Your task to perform on an android device: show emergency info Image 0: 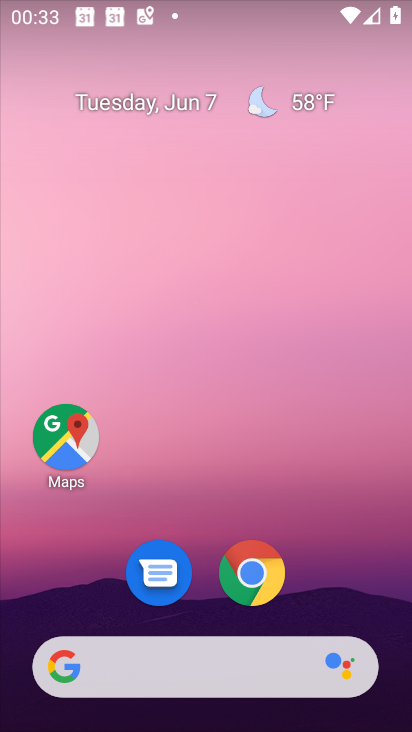
Step 0: press home button
Your task to perform on an android device: show emergency info Image 1: 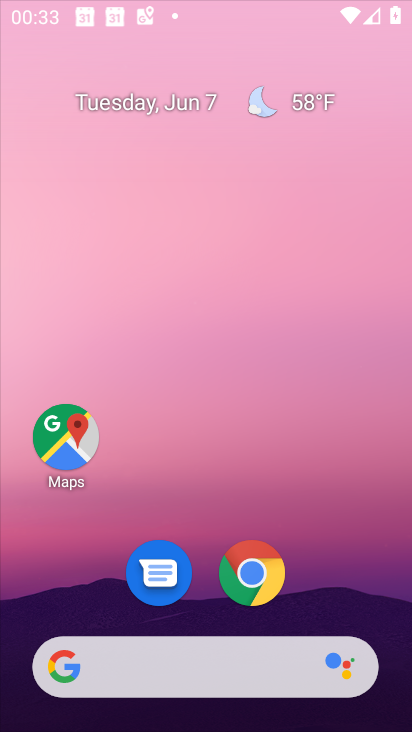
Step 1: drag from (337, 593) to (298, 5)
Your task to perform on an android device: show emergency info Image 2: 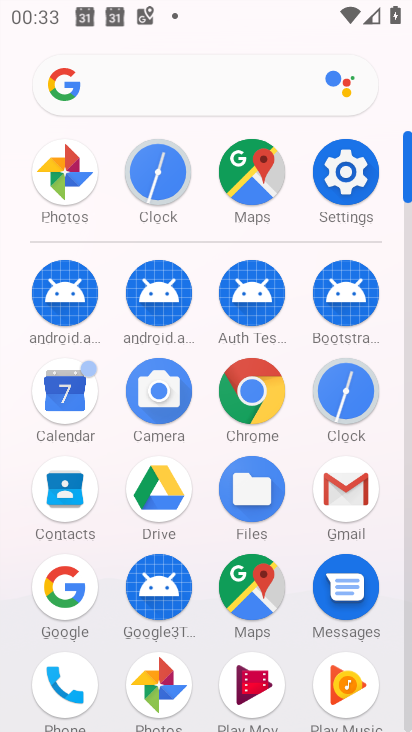
Step 2: click (352, 185)
Your task to perform on an android device: show emergency info Image 3: 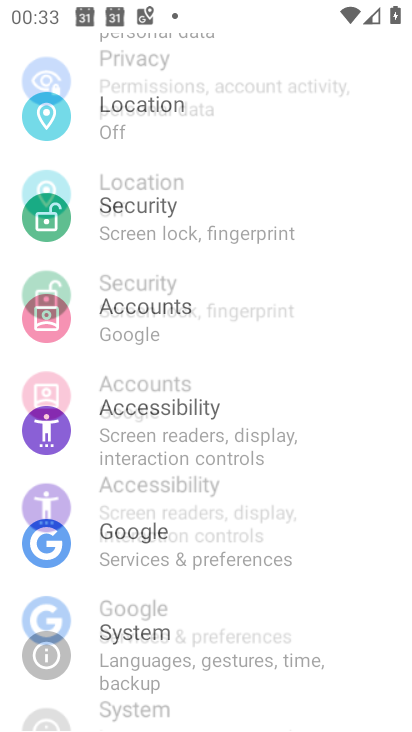
Step 3: drag from (239, 603) to (223, 312)
Your task to perform on an android device: show emergency info Image 4: 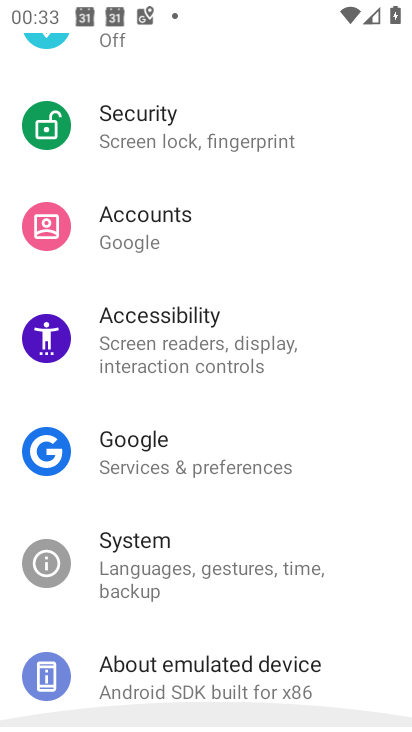
Step 4: drag from (211, 215) to (198, 117)
Your task to perform on an android device: show emergency info Image 5: 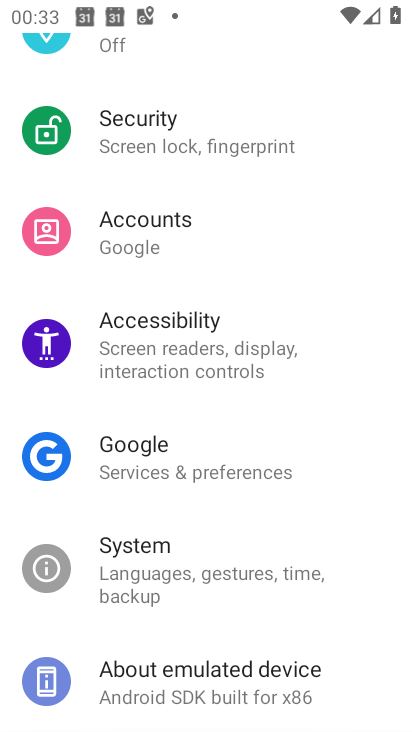
Step 5: drag from (218, 445) to (163, 132)
Your task to perform on an android device: show emergency info Image 6: 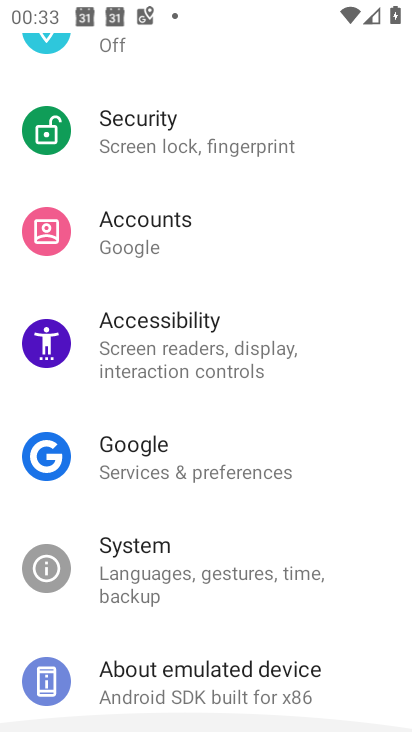
Step 6: drag from (184, 332) to (158, 121)
Your task to perform on an android device: show emergency info Image 7: 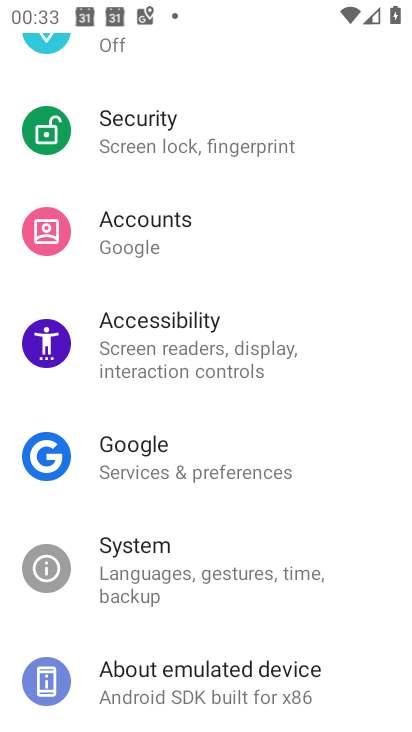
Step 7: click (200, 676)
Your task to perform on an android device: show emergency info Image 8: 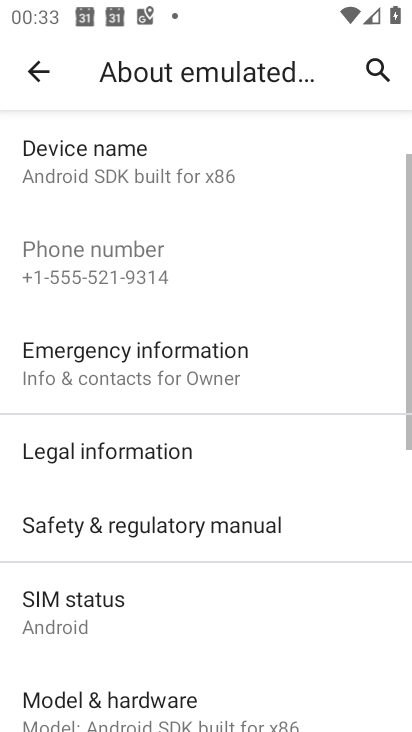
Step 8: click (182, 384)
Your task to perform on an android device: show emergency info Image 9: 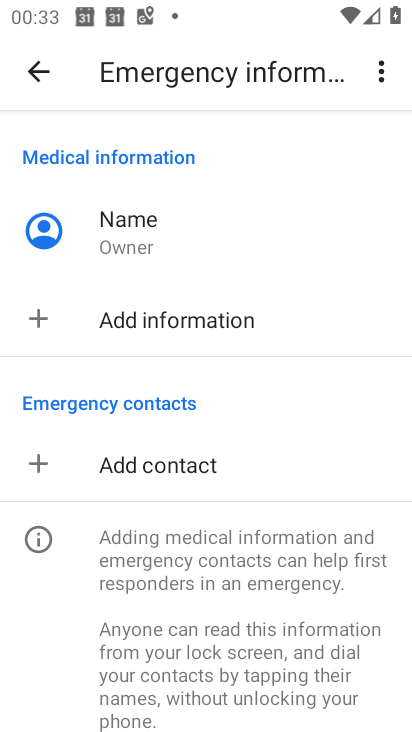
Step 9: task complete